Your task to perform on an android device: check google app version Image 0: 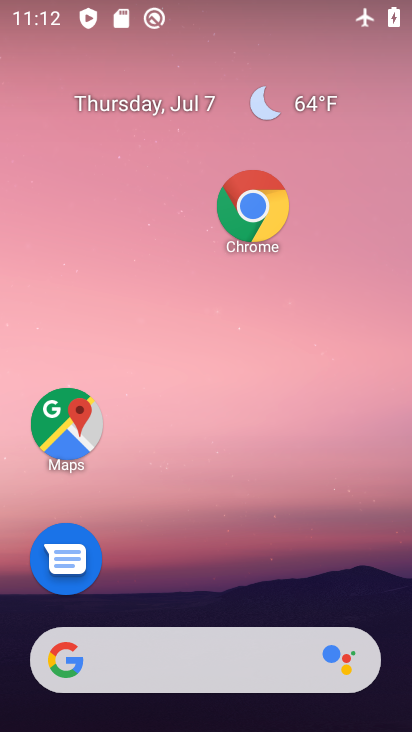
Step 0: drag from (201, 629) to (234, 211)
Your task to perform on an android device: check google app version Image 1: 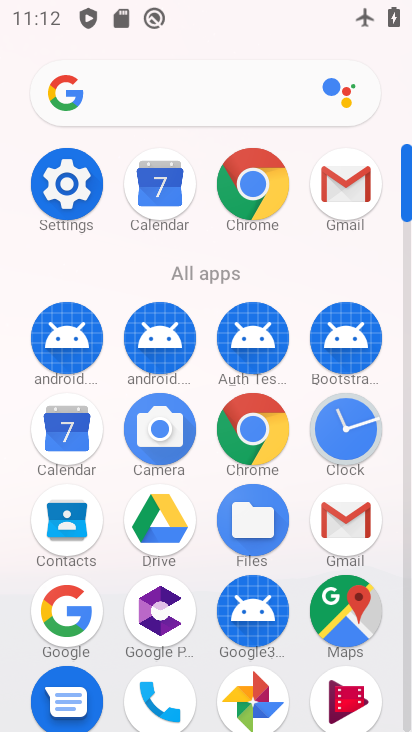
Step 1: click (67, 620)
Your task to perform on an android device: check google app version Image 2: 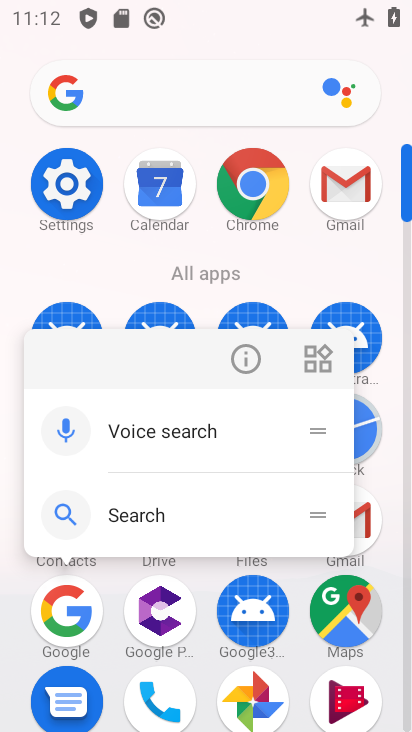
Step 2: click (254, 353)
Your task to perform on an android device: check google app version Image 3: 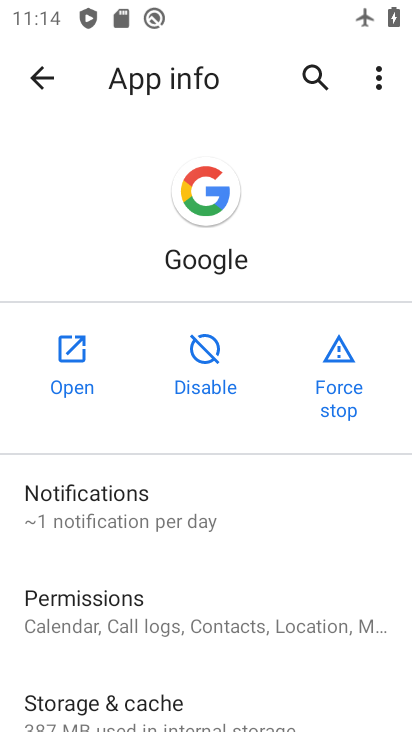
Step 3: drag from (197, 692) to (220, 304)
Your task to perform on an android device: check google app version Image 4: 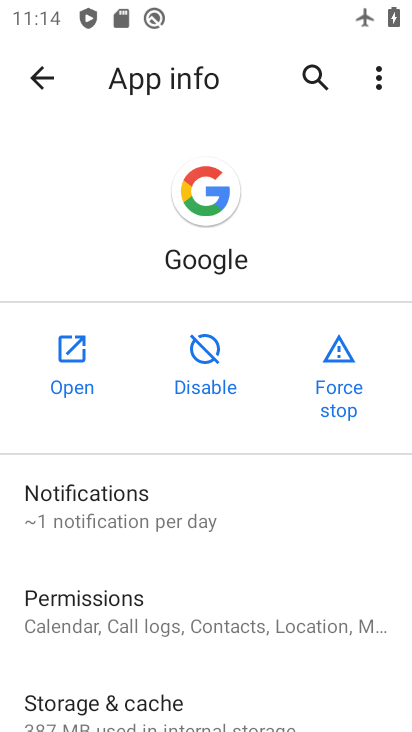
Step 4: drag from (158, 711) to (207, 286)
Your task to perform on an android device: check google app version Image 5: 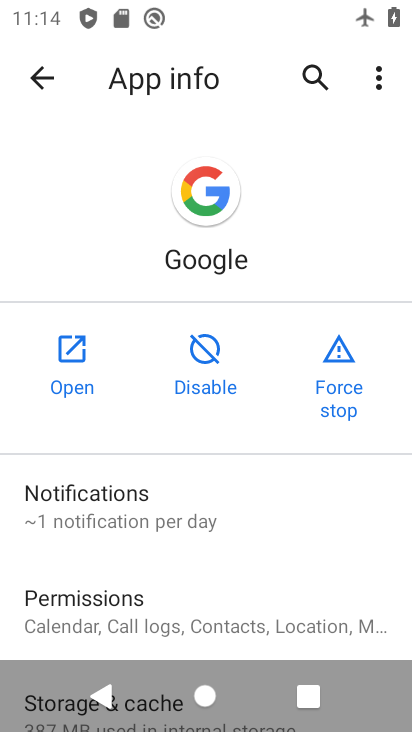
Step 5: drag from (217, 618) to (335, 92)
Your task to perform on an android device: check google app version Image 6: 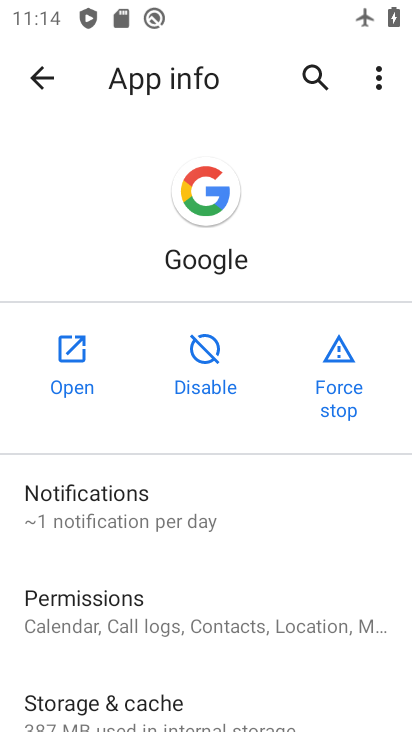
Step 6: drag from (217, 535) to (301, 40)
Your task to perform on an android device: check google app version Image 7: 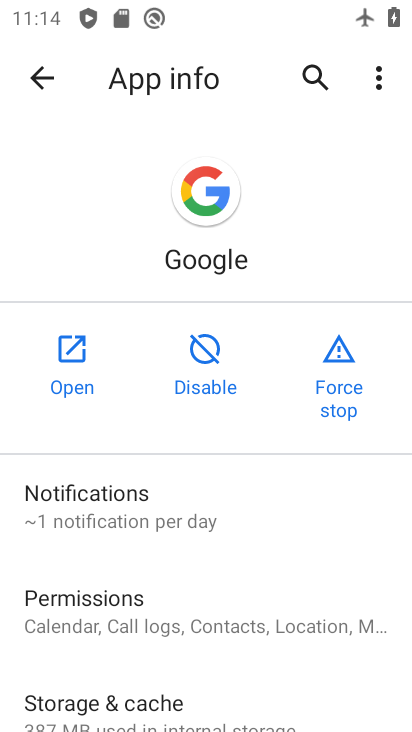
Step 7: drag from (197, 662) to (269, 94)
Your task to perform on an android device: check google app version Image 8: 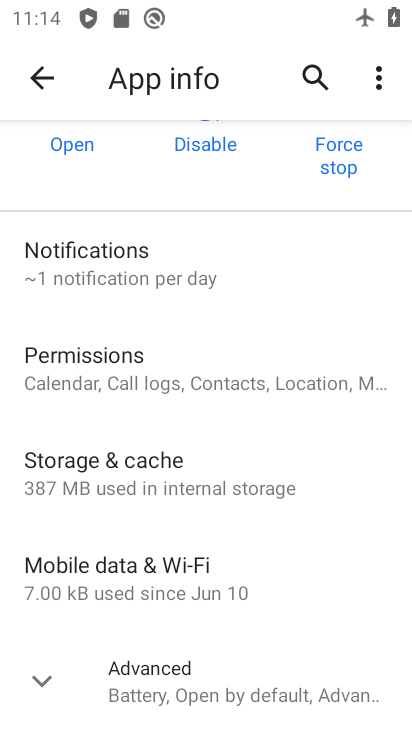
Step 8: click (155, 695)
Your task to perform on an android device: check google app version Image 9: 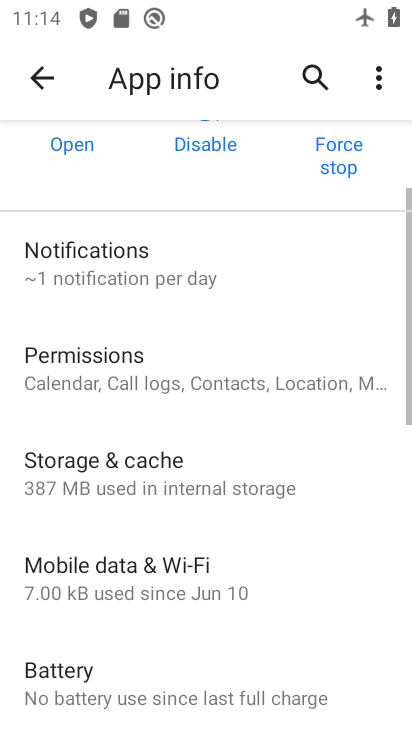
Step 9: task complete